Your task to perform on an android device: find which apps use the phone's location Image 0: 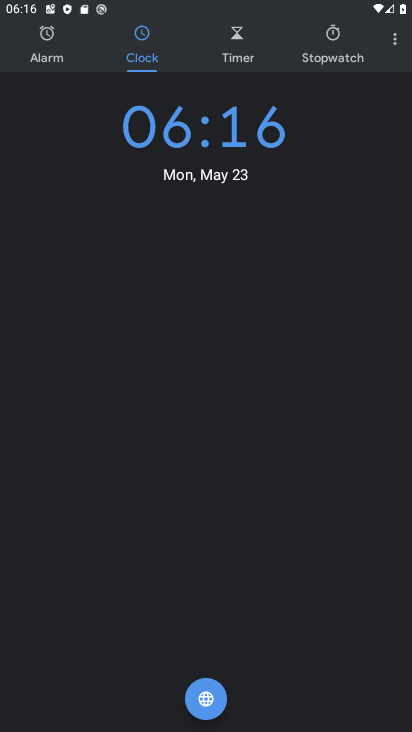
Step 0: press home button
Your task to perform on an android device: find which apps use the phone's location Image 1: 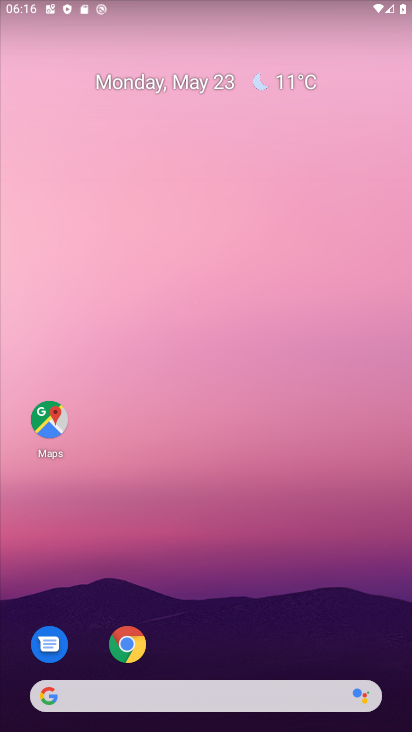
Step 1: drag from (200, 633) to (184, 47)
Your task to perform on an android device: find which apps use the phone's location Image 2: 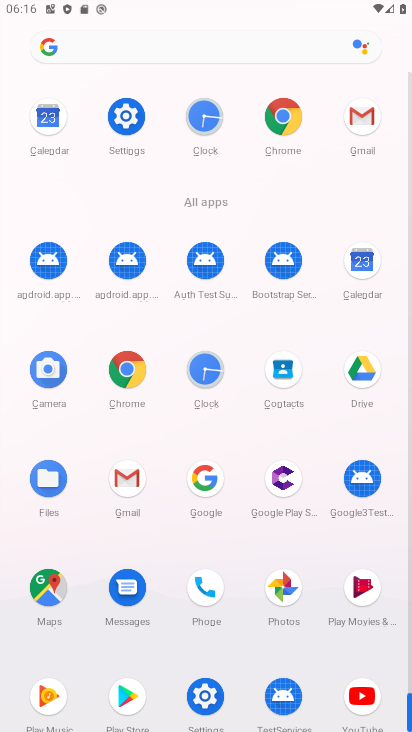
Step 2: click (118, 124)
Your task to perform on an android device: find which apps use the phone's location Image 3: 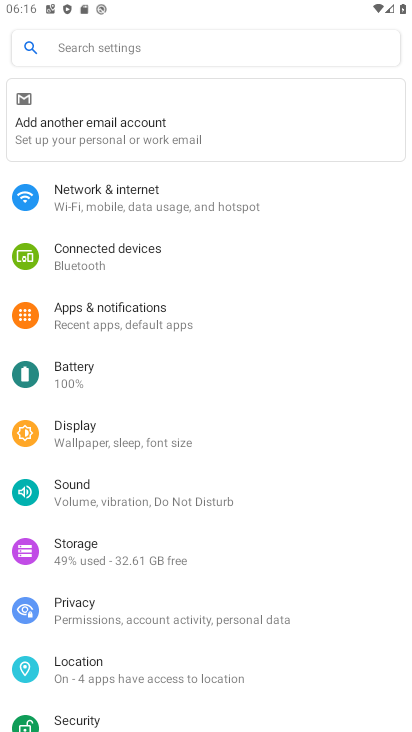
Step 3: click (91, 674)
Your task to perform on an android device: find which apps use the phone's location Image 4: 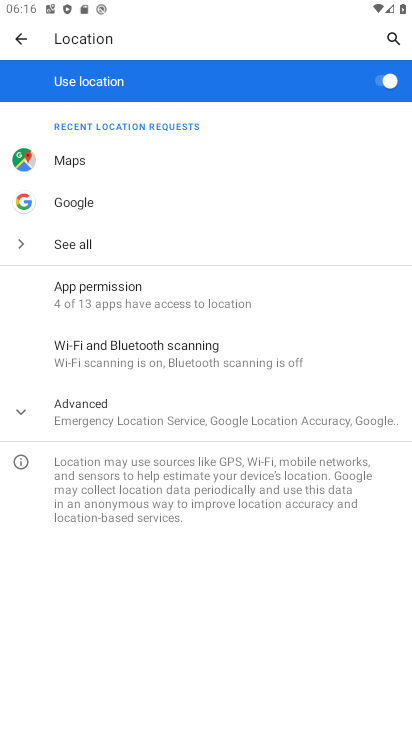
Step 4: click (89, 286)
Your task to perform on an android device: find which apps use the phone's location Image 5: 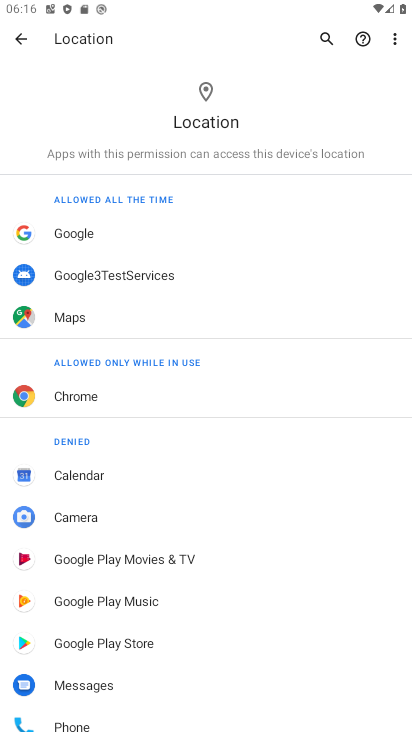
Step 5: task complete